Your task to perform on an android device: search for starred emails in the gmail app Image 0: 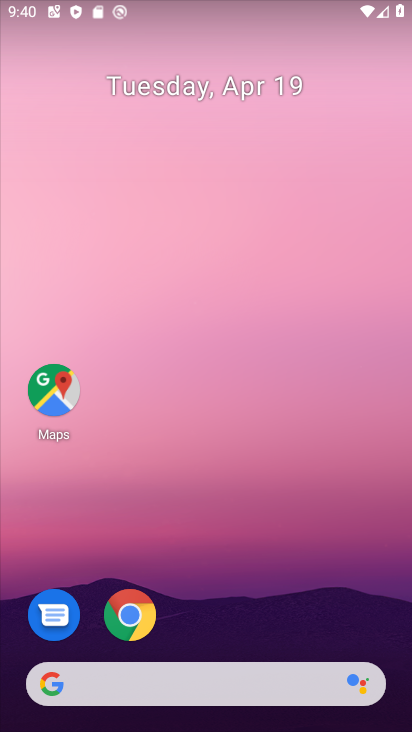
Step 0: drag from (198, 621) to (187, 2)
Your task to perform on an android device: search for starred emails in the gmail app Image 1: 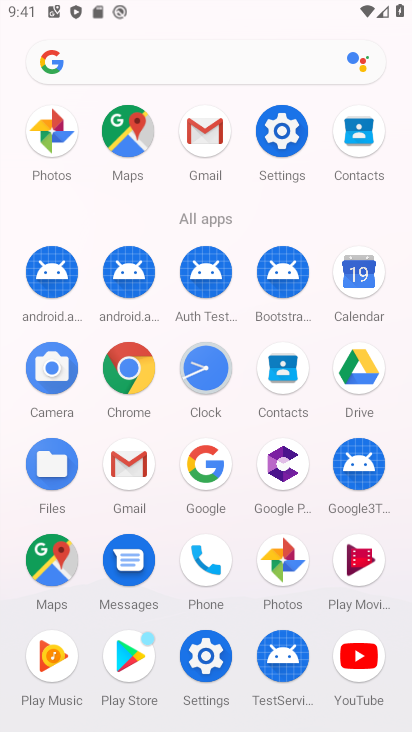
Step 1: drag from (168, 601) to (177, 207)
Your task to perform on an android device: search for starred emails in the gmail app Image 2: 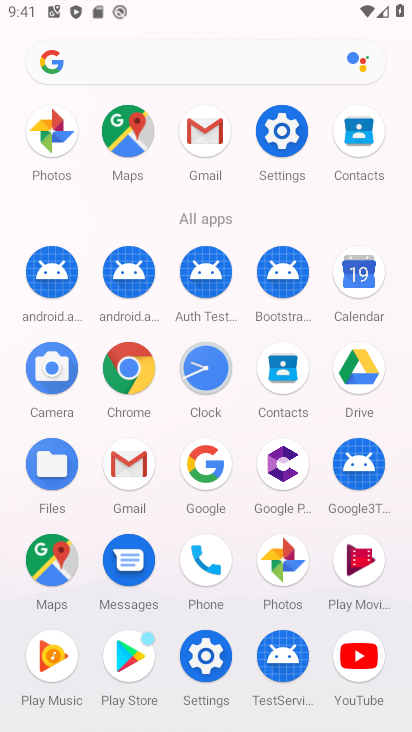
Step 2: drag from (250, 613) to (279, 278)
Your task to perform on an android device: search for starred emails in the gmail app Image 3: 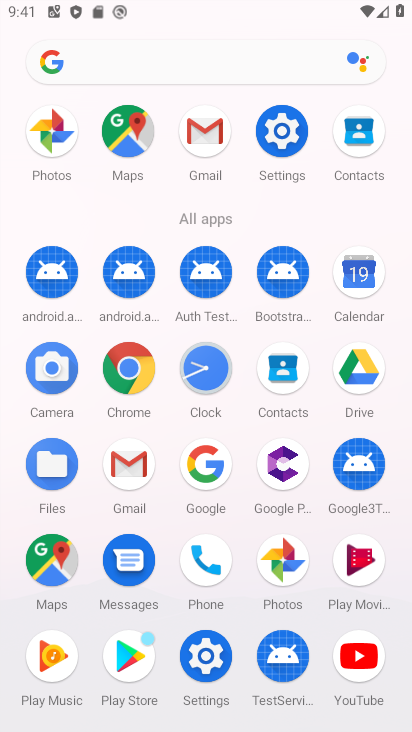
Step 3: click (134, 461)
Your task to perform on an android device: search for starred emails in the gmail app Image 4: 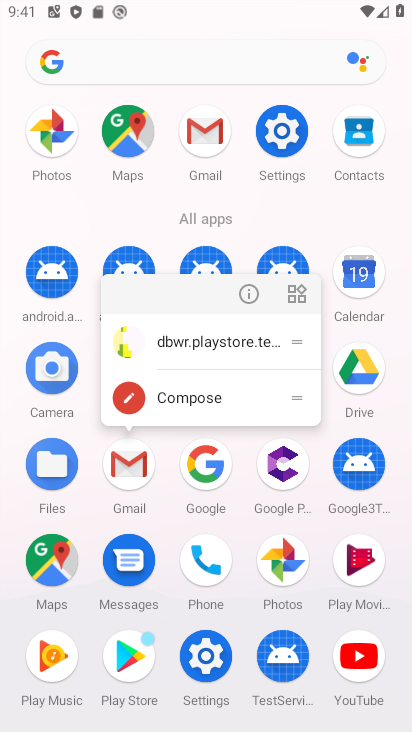
Step 4: click (254, 295)
Your task to perform on an android device: search for starred emails in the gmail app Image 5: 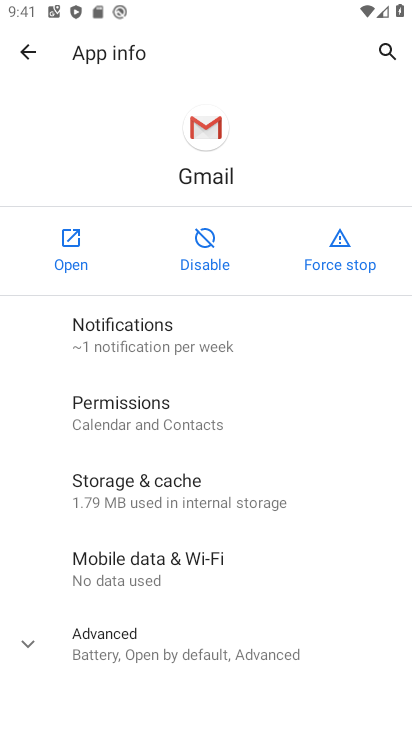
Step 5: click (77, 254)
Your task to perform on an android device: search for starred emails in the gmail app Image 6: 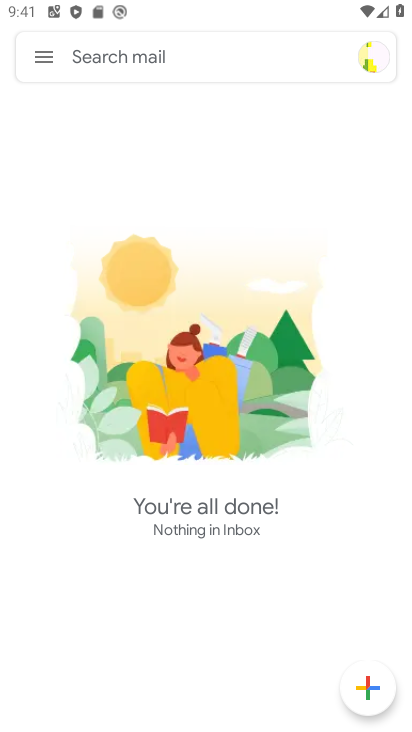
Step 6: drag from (203, 555) to (268, 150)
Your task to perform on an android device: search for starred emails in the gmail app Image 7: 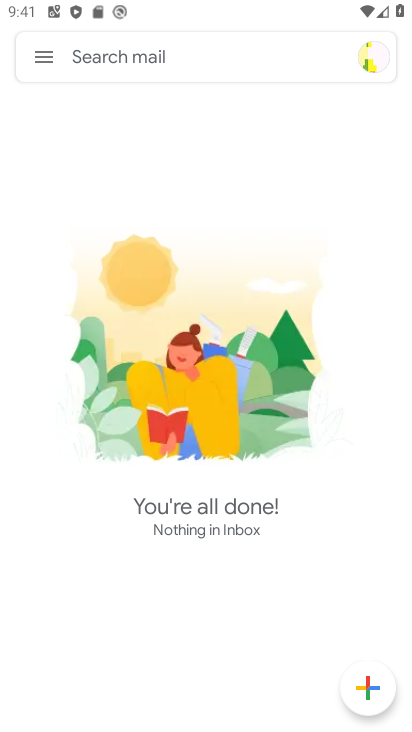
Step 7: click (108, 57)
Your task to perform on an android device: search for starred emails in the gmail app Image 8: 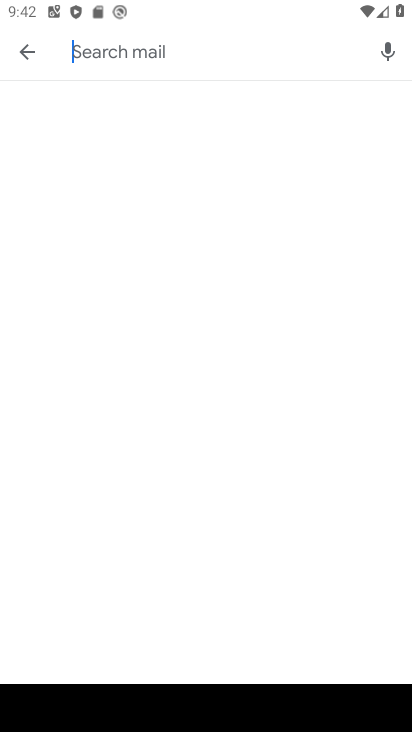
Step 8: click (114, 54)
Your task to perform on an android device: search for starred emails in the gmail app Image 9: 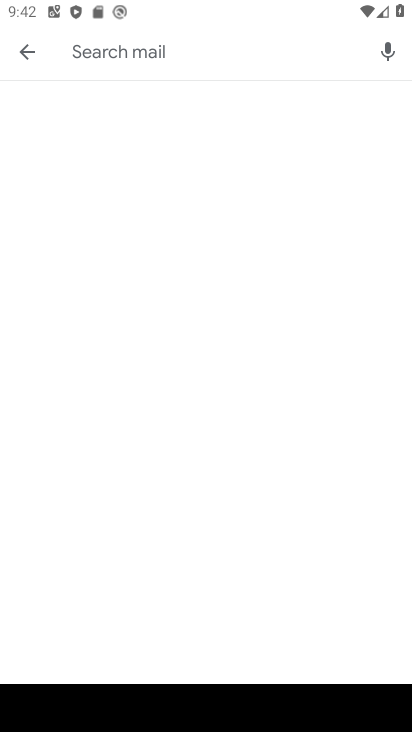
Step 9: click (155, 70)
Your task to perform on an android device: search for starred emails in the gmail app Image 10: 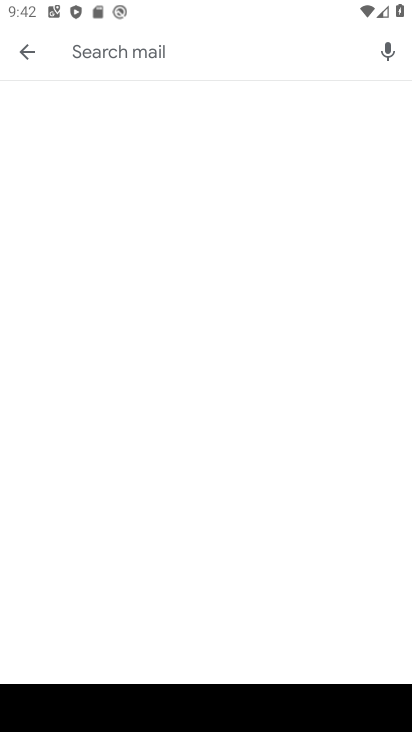
Step 10: click (156, 45)
Your task to perform on an android device: search for starred emails in the gmail app Image 11: 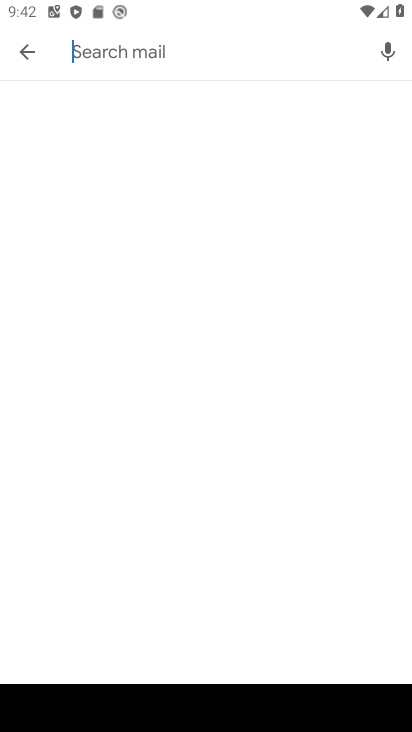
Step 11: drag from (107, 387) to (160, 296)
Your task to perform on an android device: search for starred emails in the gmail app Image 12: 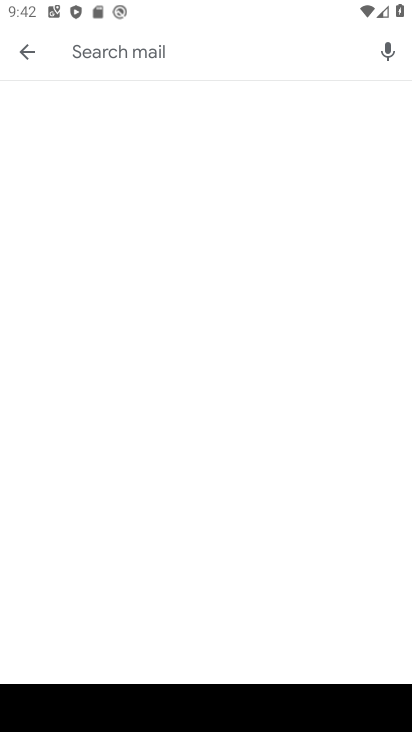
Step 12: click (169, 51)
Your task to perform on an android device: search for starred emails in the gmail app Image 13: 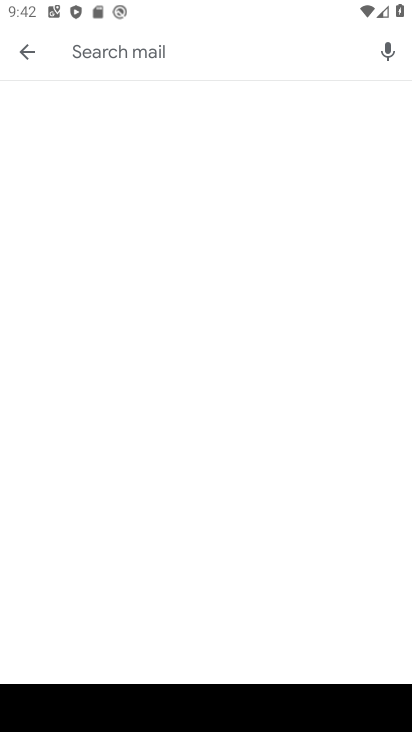
Step 13: click (131, 52)
Your task to perform on an android device: search for starred emails in the gmail app Image 14: 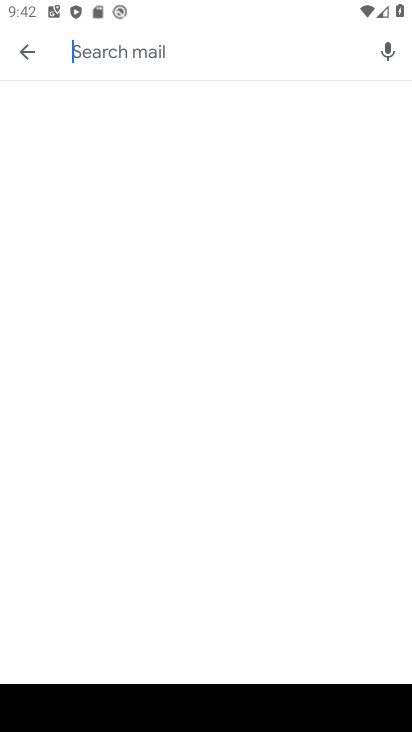
Step 14: click (114, 42)
Your task to perform on an android device: search for starred emails in the gmail app Image 15: 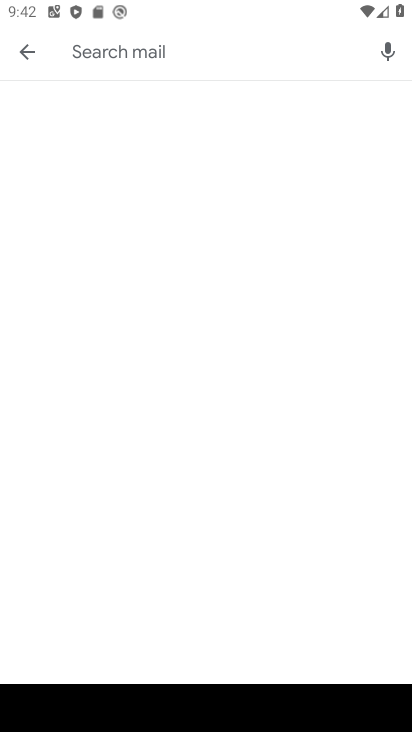
Step 15: click (112, 58)
Your task to perform on an android device: search for starred emails in the gmail app Image 16: 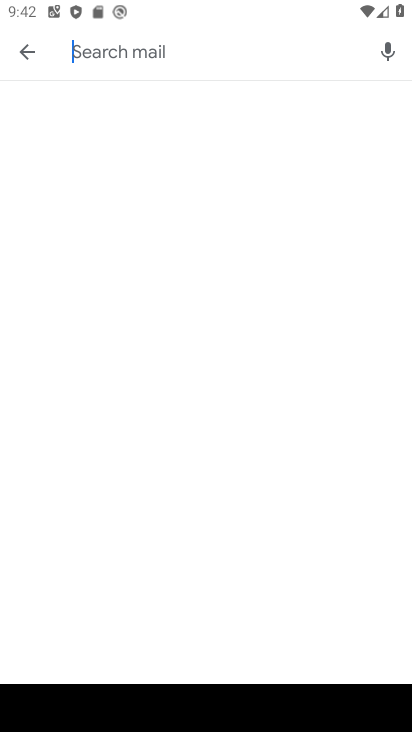
Step 16: click (108, 41)
Your task to perform on an android device: search for starred emails in the gmail app Image 17: 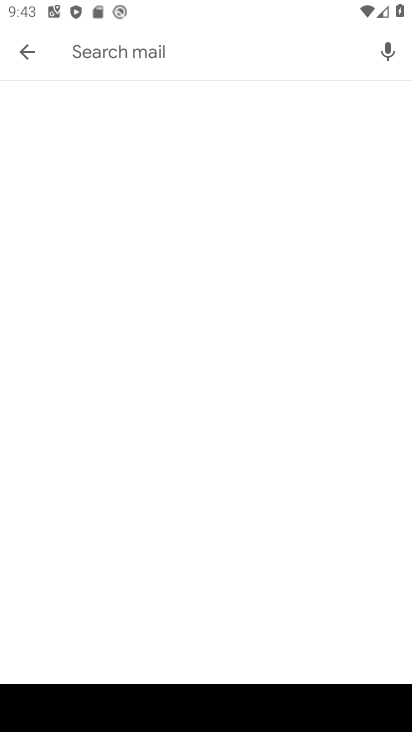
Step 17: type "starred "
Your task to perform on an android device: search for starred emails in the gmail app Image 18: 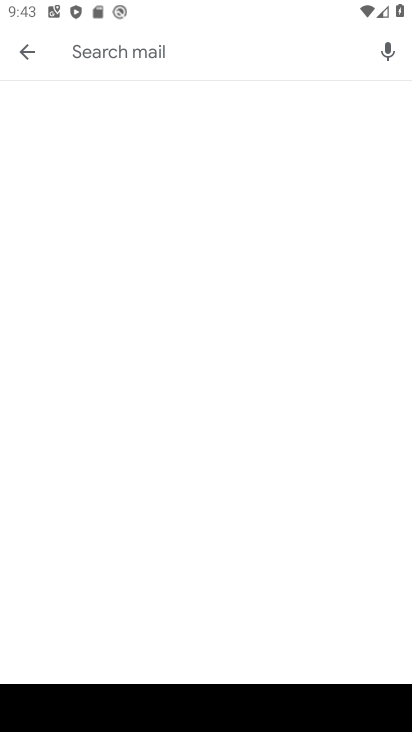
Step 18: click (13, 54)
Your task to perform on an android device: search for starred emails in the gmail app Image 19: 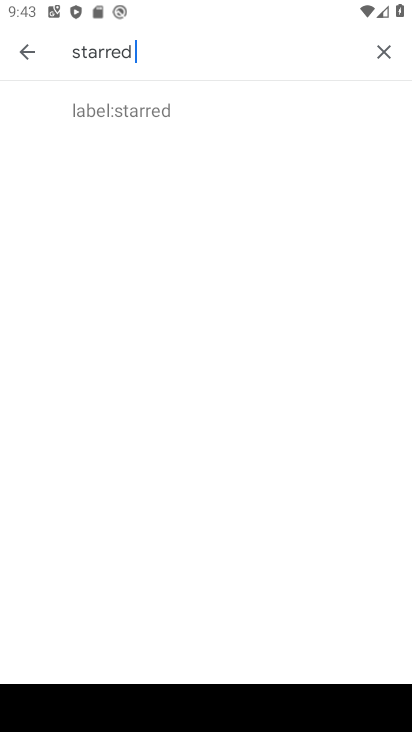
Step 19: click (23, 46)
Your task to perform on an android device: search for starred emails in the gmail app Image 20: 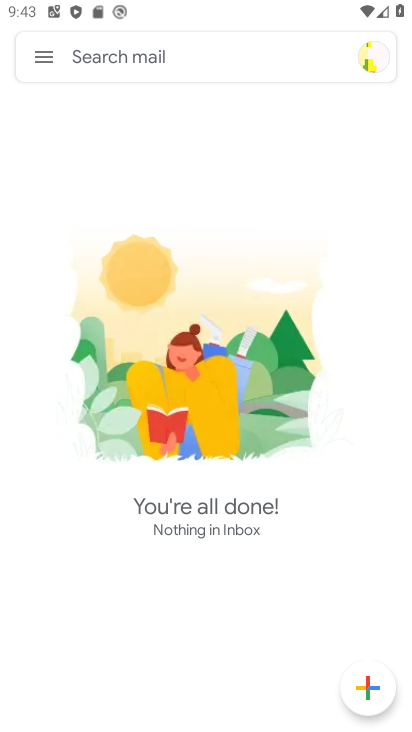
Step 20: click (26, 56)
Your task to perform on an android device: search for starred emails in the gmail app Image 21: 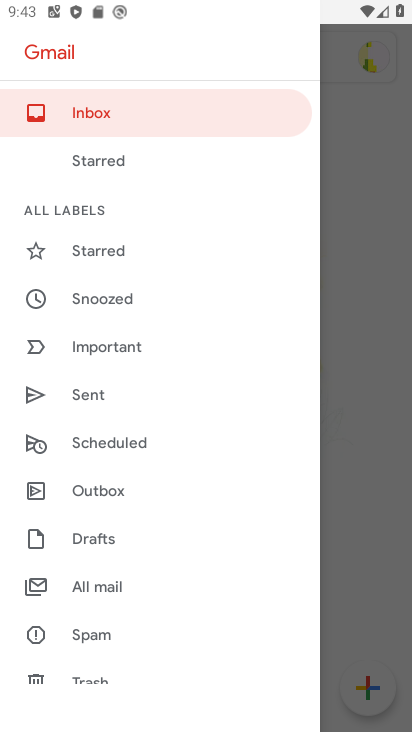
Step 21: click (121, 260)
Your task to perform on an android device: search for starred emails in the gmail app Image 22: 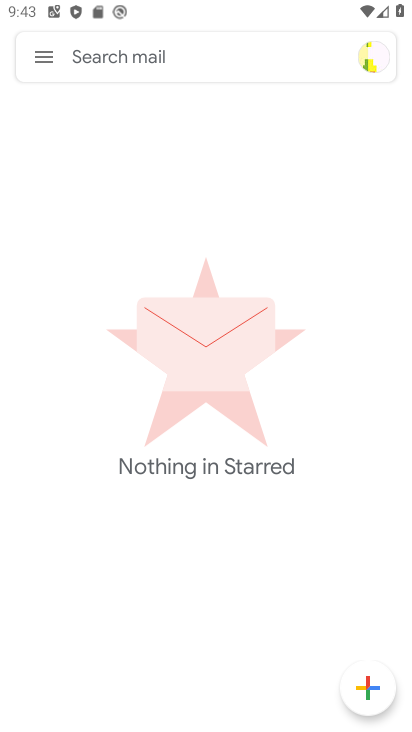
Step 22: drag from (273, 325) to (316, 113)
Your task to perform on an android device: search for starred emails in the gmail app Image 23: 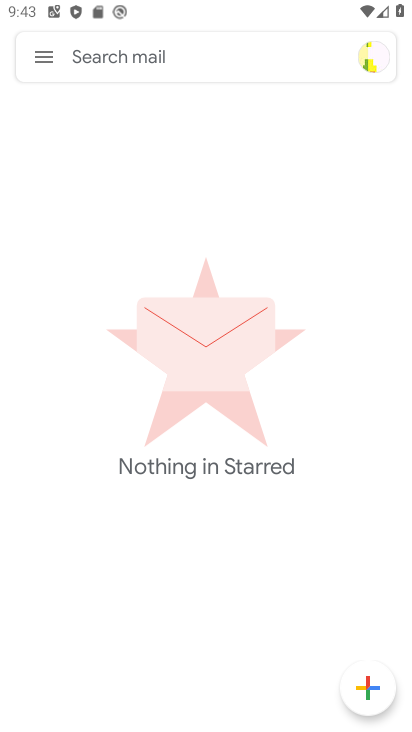
Step 23: drag from (162, 271) to (289, 143)
Your task to perform on an android device: search for starred emails in the gmail app Image 24: 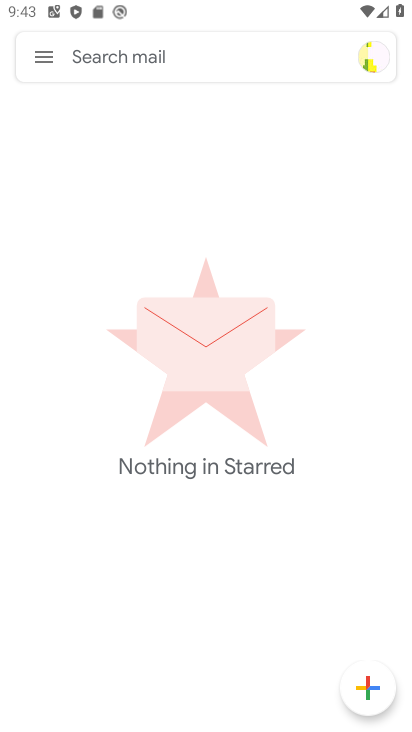
Step 24: click (34, 62)
Your task to perform on an android device: search for starred emails in the gmail app Image 25: 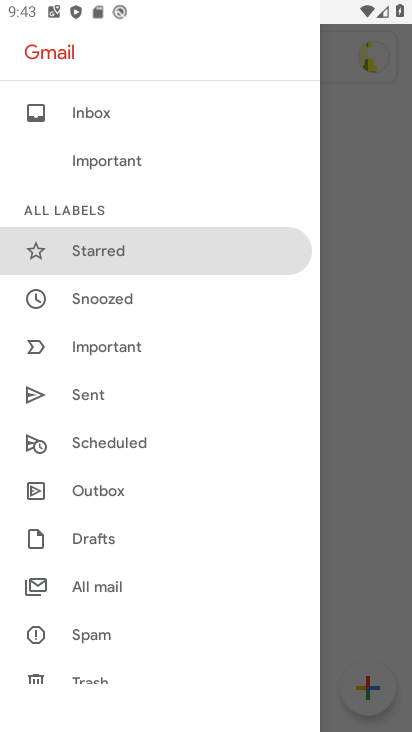
Step 25: click (100, 259)
Your task to perform on an android device: search for starred emails in the gmail app Image 26: 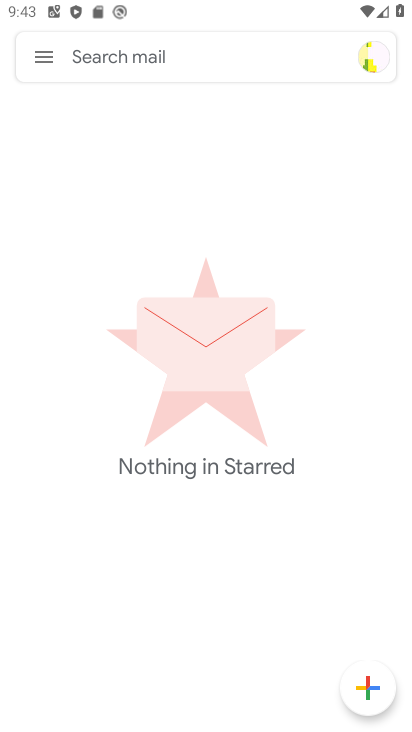
Step 26: drag from (247, 521) to (247, 244)
Your task to perform on an android device: search for starred emails in the gmail app Image 27: 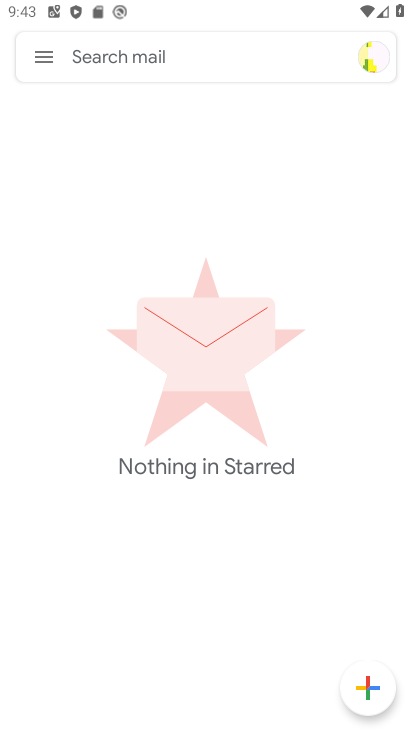
Step 27: drag from (245, 383) to (264, 294)
Your task to perform on an android device: search for starred emails in the gmail app Image 28: 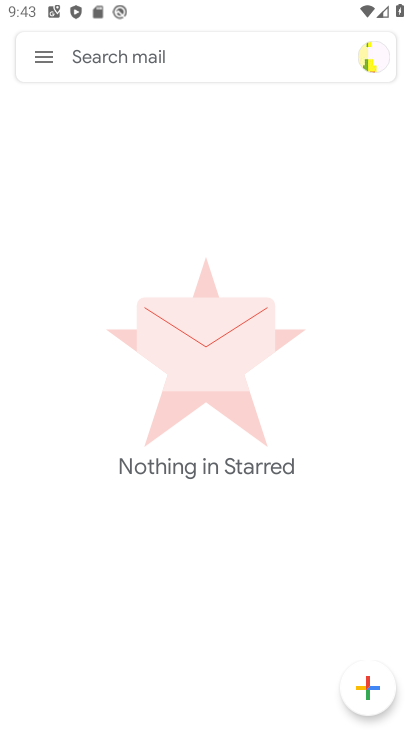
Step 28: drag from (100, 249) to (347, 567)
Your task to perform on an android device: search for starred emails in the gmail app Image 29: 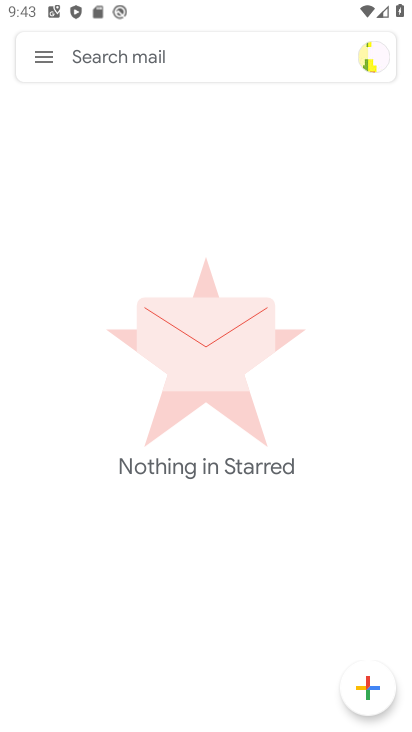
Step 29: click (45, 71)
Your task to perform on an android device: search for starred emails in the gmail app Image 30: 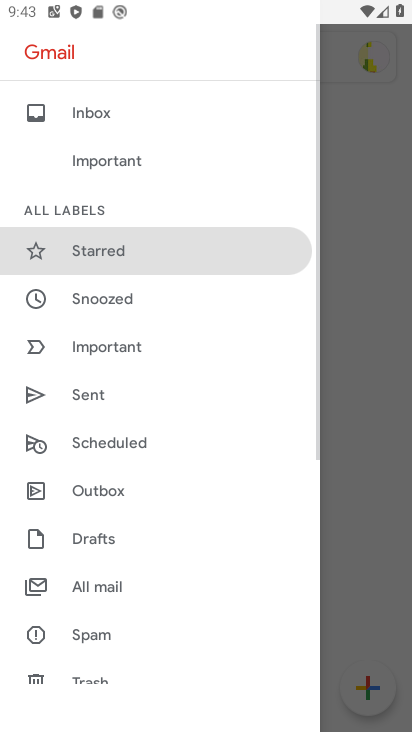
Step 30: click (150, 247)
Your task to perform on an android device: search for starred emails in the gmail app Image 31: 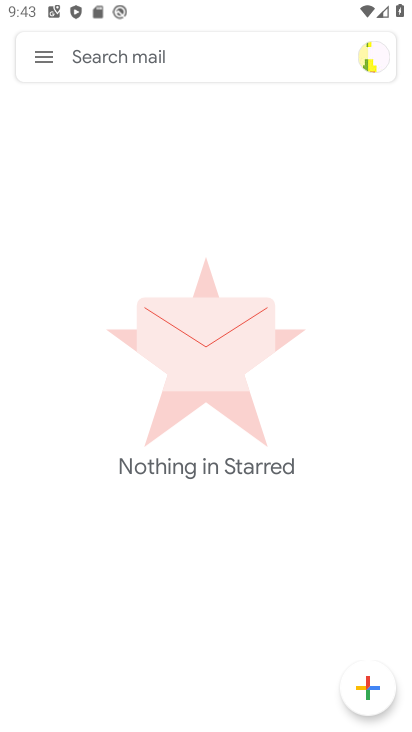
Step 31: drag from (204, 171) to (243, 88)
Your task to perform on an android device: search for starred emails in the gmail app Image 32: 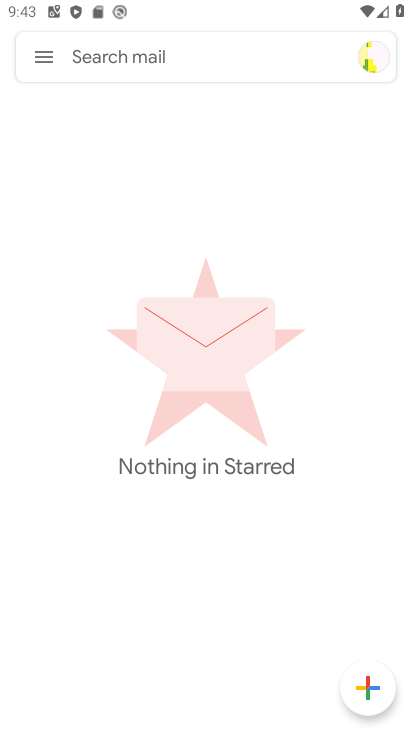
Step 32: drag from (216, 454) to (294, 262)
Your task to perform on an android device: search for starred emails in the gmail app Image 33: 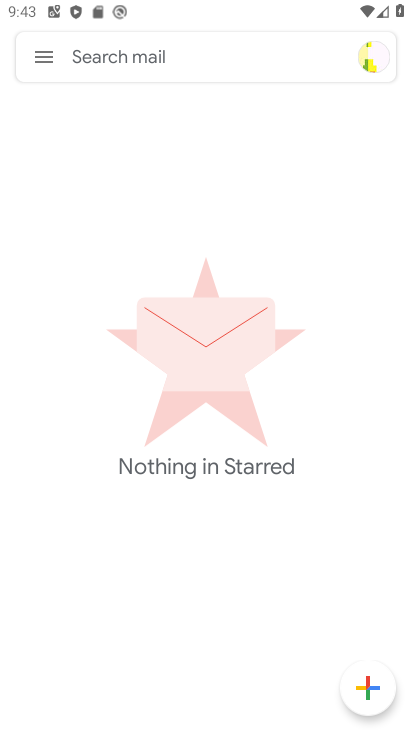
Step 33: click (252, 193)
Your task to perform on an android device: search for starred emails in the gmail app Image 34: 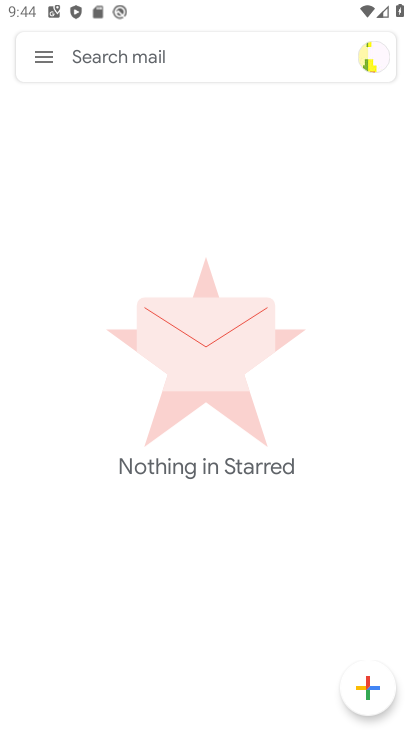
Step 34: drag from (292, 383) to (369, 160)
Your task to perform on an android device: search for starred emails in the gmail app Image 35: 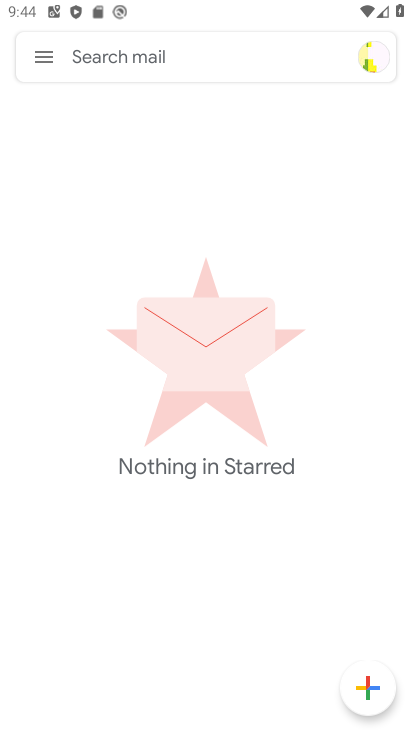
Step 35: click (218, 480)
Your task to perform on an android device: search for starred emails in the gmail app Image 36: 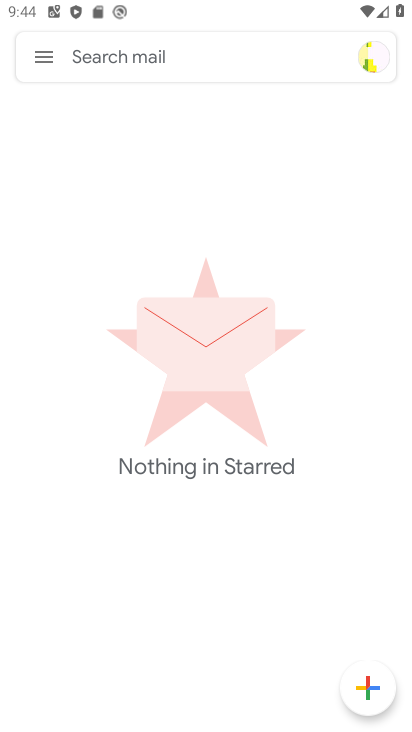
Step 36: click (209, 473)
Your task to perform on an android device: search for starred emails in the gmail app Image 37: 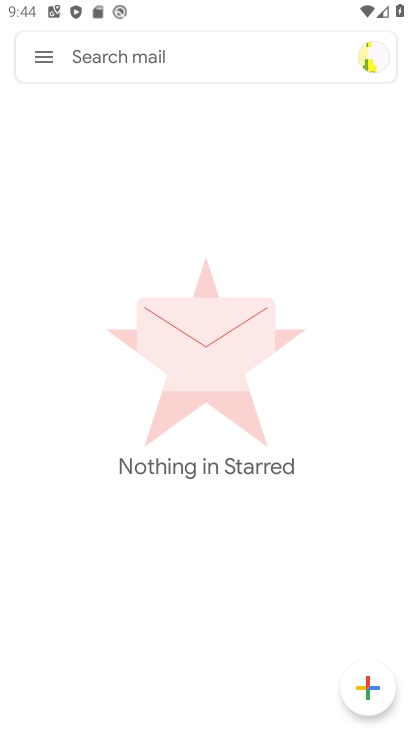
Step 37: click (218, 455)
Your task to perform on an android device: search for starred emails in the gmail app Image 38: 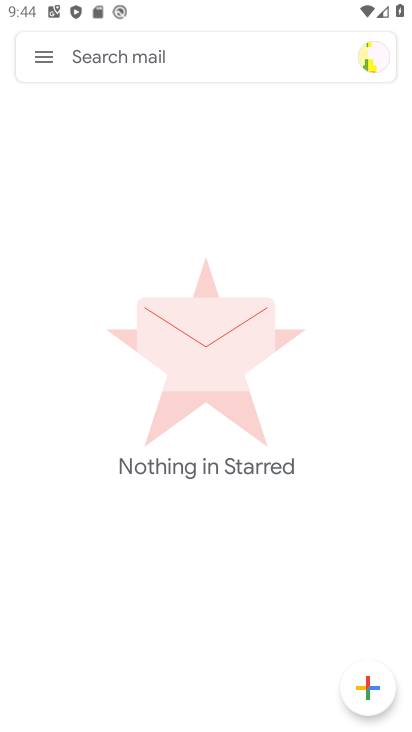
Step 38: task complete